Your task to perform on an android device: Open the calendar and show me this week's events? Image 0: 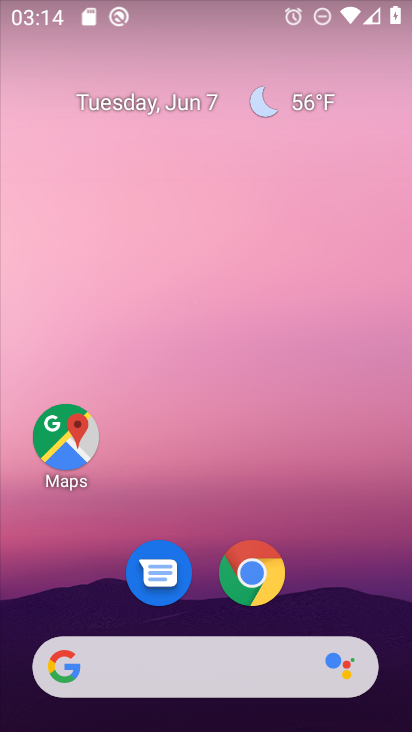
Step 0: drag from (346, 613) to (198, 29)
Your task to perform on an android device: Open the calendar and show me this week's events? Image 1: 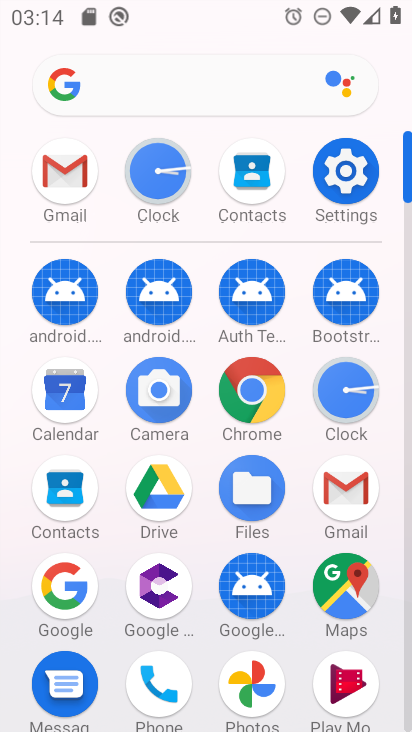
Step 1: click (69, 395)
Your task to perform on an android device: Open the calendar and show me this week's events? Image 2: 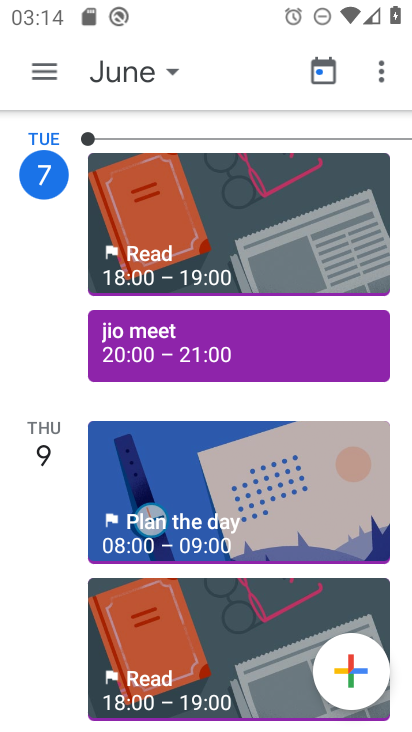
Step 2: task complete